Your task to perform on an android device: Open Amazon Image 0: 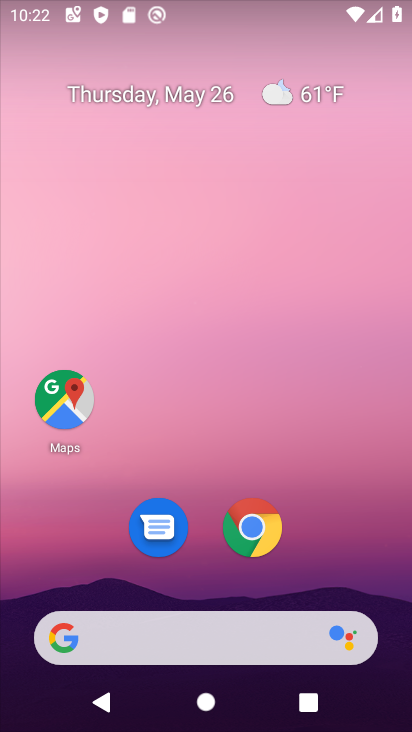
Step 0: click (250, 524)
Your task to perform on an android device: Open Amazon Image 1: 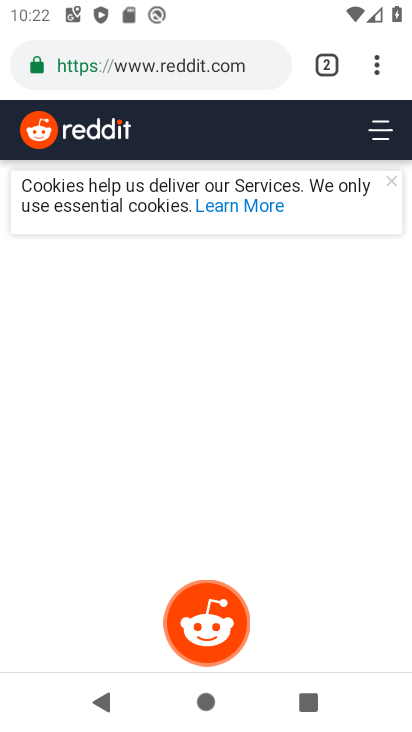
Step 1: click (325, 64)
Your task to perform on an android device: Open Amazon Image 2: 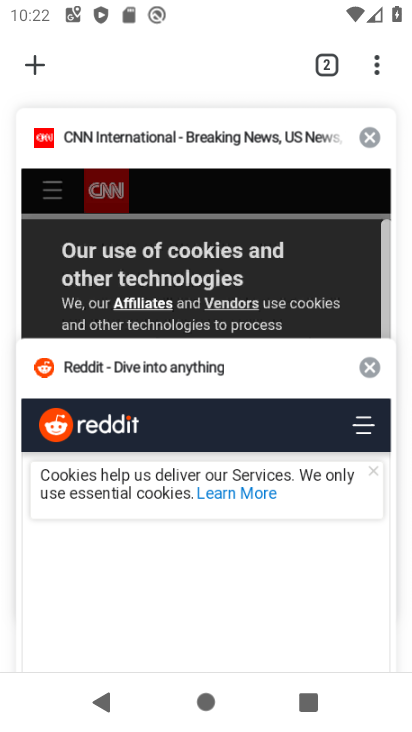
Step 2: click (30, 59)
Your task to perform on an android device: Open Amazon Image 3: 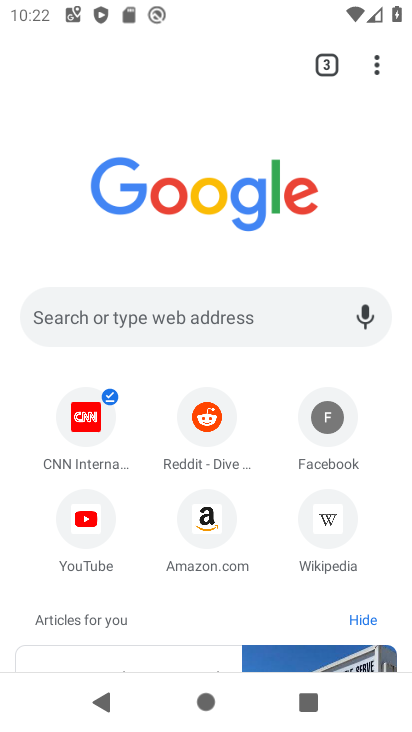
Step 3: click (205, 529)
Your task to perform on an android device: Open Amazon Image 4: 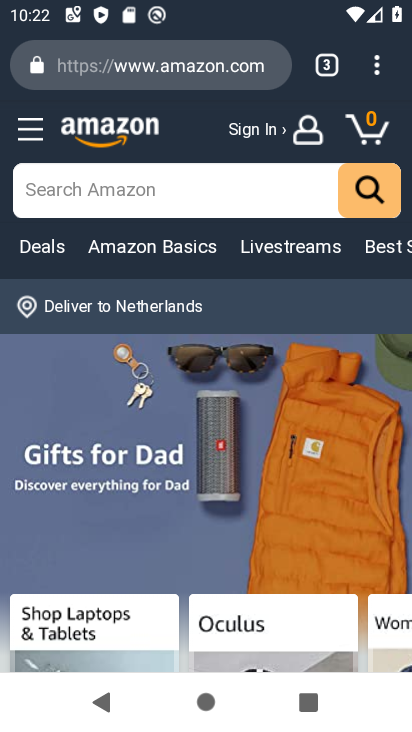
Step 4: task complete